Your task to perform on an android device: Open maps Image 0: 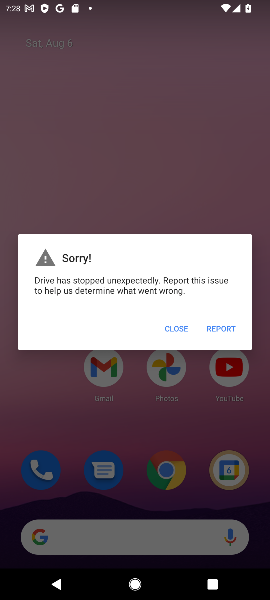
Step 0: press home button
Your task to perform on an android device: Open maps Image 1: 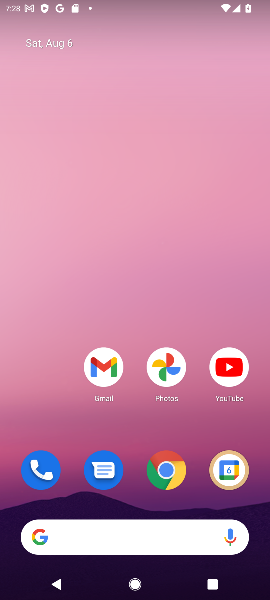
Step 1: drag from (144, 533) to (225, 80)
Your task to perform on an android device: Open maps Image 2: 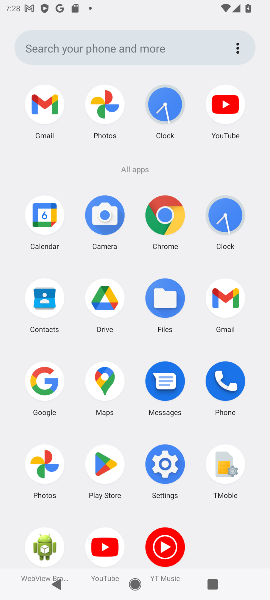
Step 2: click (107, 386)
Your task to perform on an android device: Open maps Image 3: 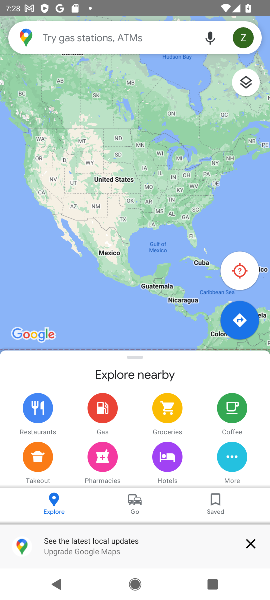
Step 3: task complete